Your task to perform on an android device: change your default location settings in chrome Image 0: 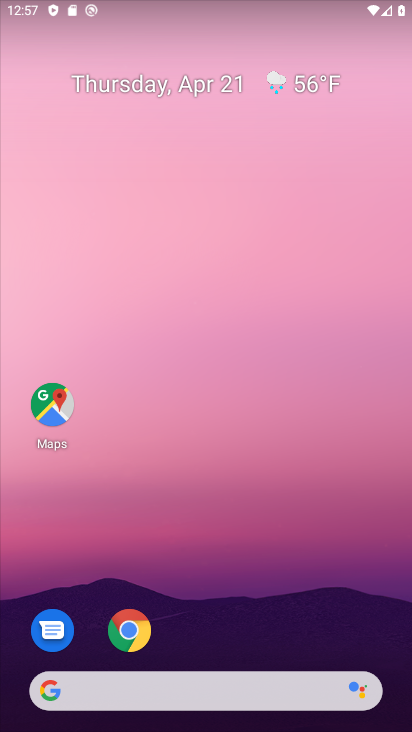
Step 0: drag from (198, 685) to (201, 6)
Your task to perform on an android device: change your default location settings in chrome Image 1: 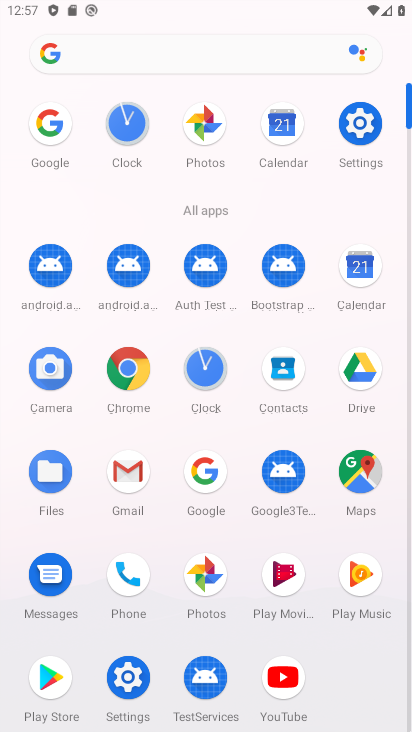
Step 1: click (121, 389)
Your task to perform on an android device: change your default location settings in chrome Image 2: 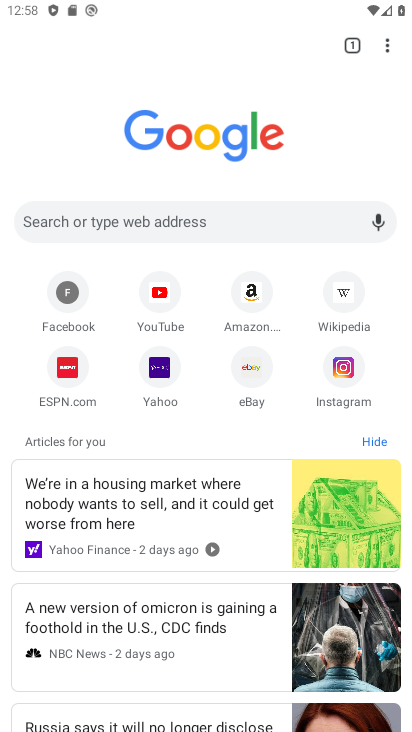
Step 2: drag from (390, 56) to (297, 387)
Your task to perform on an android device: change your default location settings in chrome Image 3: 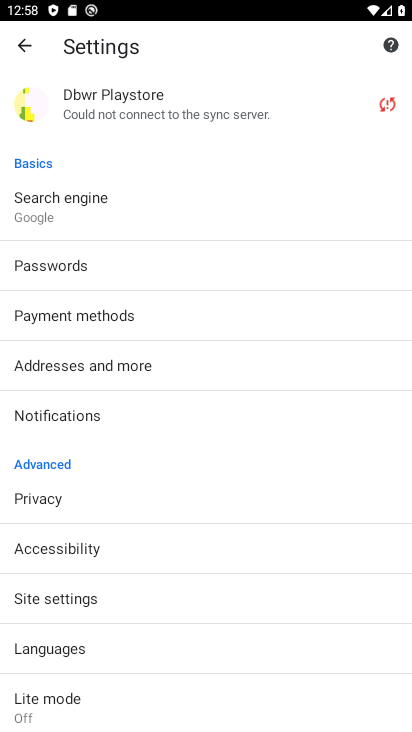
Step 3: click (78, 603)
Your task to perform on an android device: change your default location settings in chrome Image 4: 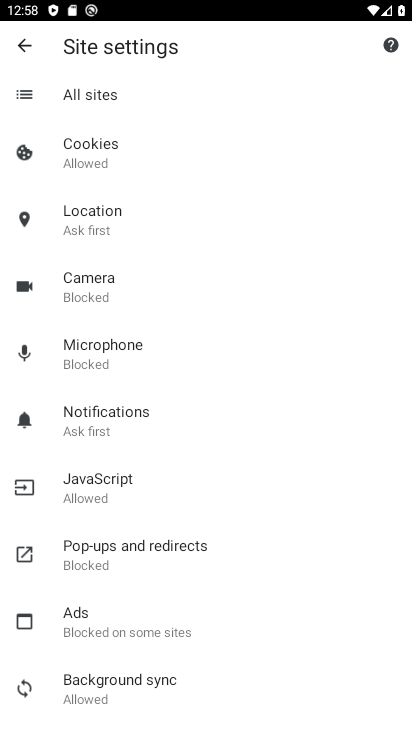
Step 4: click (88, 210)
Your task to perform on an android device: change your default location settings in chrome Image 5: 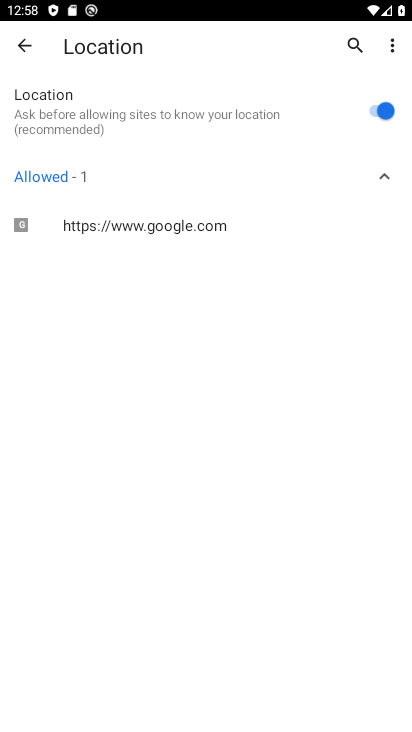
Step 5: click (376, 115)
Your task to perform on an android device: change your default location settings in chrome Image 6: 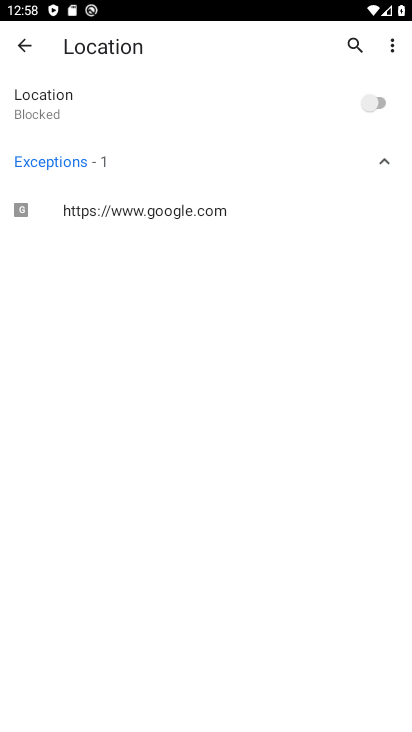
Step 6: task complete